Your task to perform on an android device: turn off javascript in the chrome app Image 0: 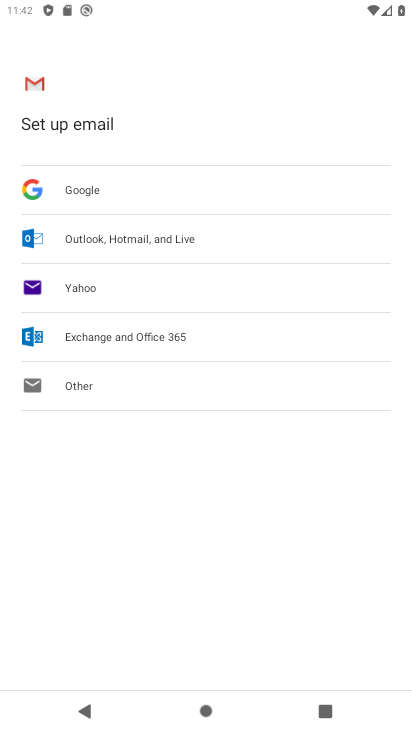
Step 0: press back button
Your task to perform on an android device: turn off javascript in the chrome app Image 1: 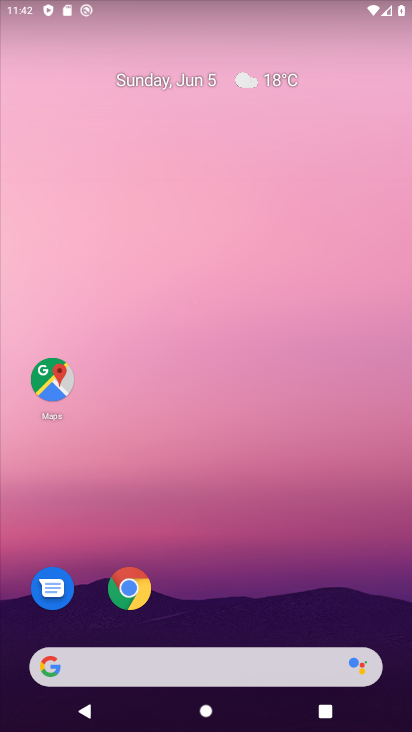
Step 1: click (145, 591)
Your task to perform on an android device: turn off javascript in the chrome app Image 2: 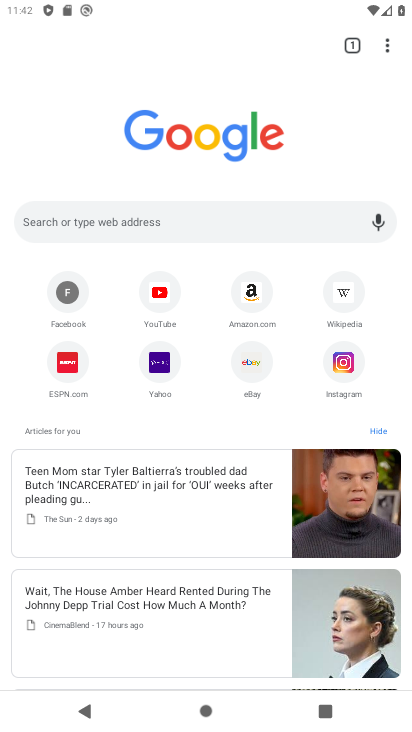
Step 2: drag from (386, 44) to (232, 381)
Your task to perform on an android device: turn off javascript in the chrome app Image 3: 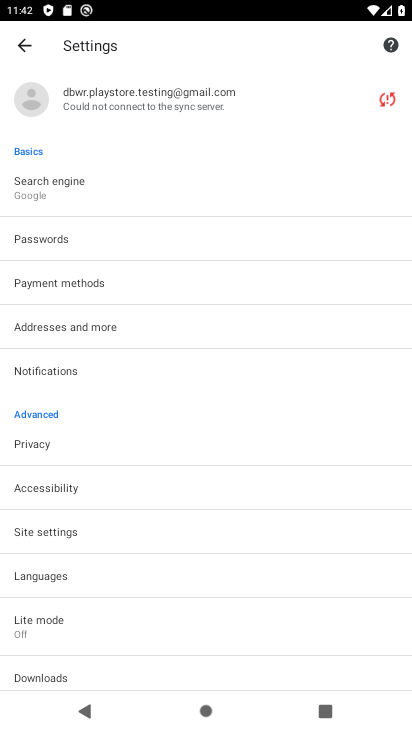
Step 3: click (56, 534)
Your task to perform on an android device: turn off javascript in the chrome app Image 4: 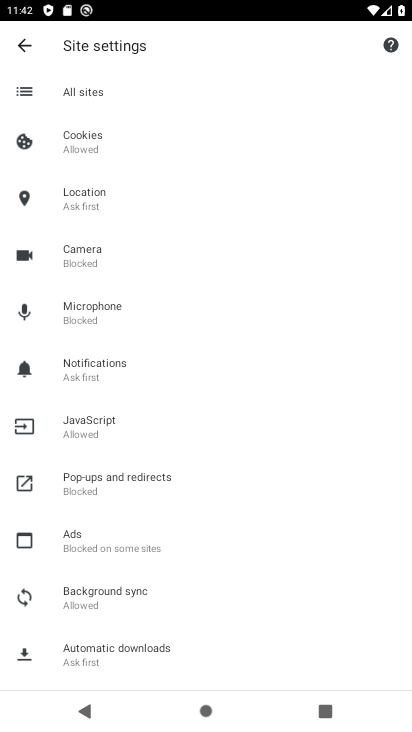
Step 4: click (96, 413)
Your task to perform on an android device: turn off javascript in the chrome app Image 5: 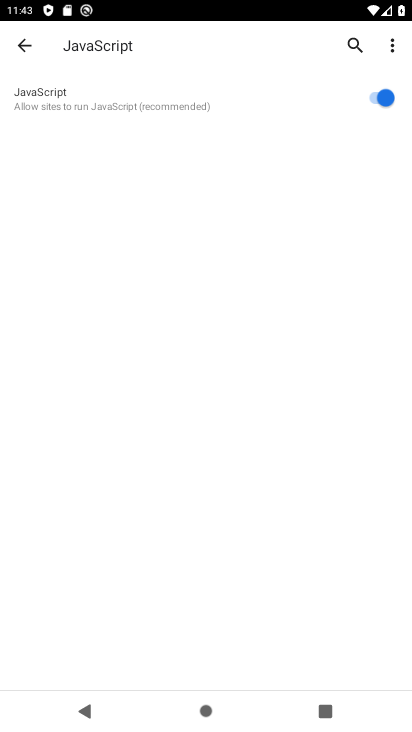
Step 5: click (388, 99)
Your task to perform on an android device: turn off javascript in the chrome app Image 6: 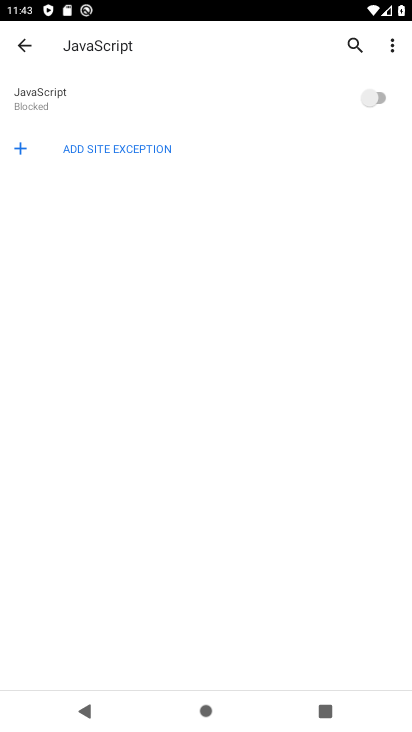
Step 6: task complete